Your task to perform on an android device: What's the weather going to be tomorrow? Image 0: 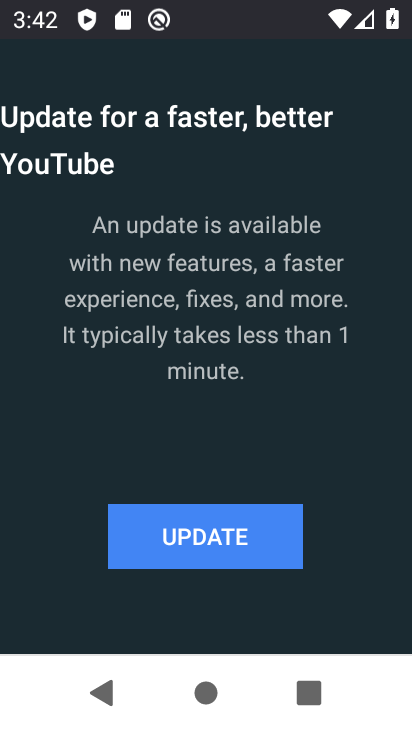
Step 0: click (280, 520)
Your task to perform on an android device: What's the weather going to be tomorrow? Image 1: 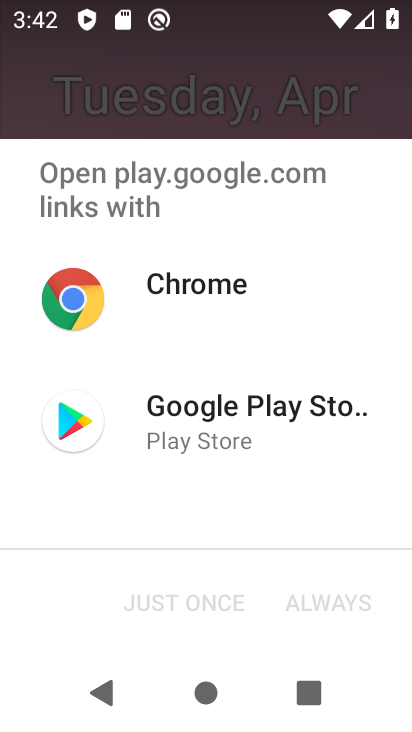
Step 1: press home button
Your task to perform on an android device: What's the weather going to be tomorrow? Image 2: 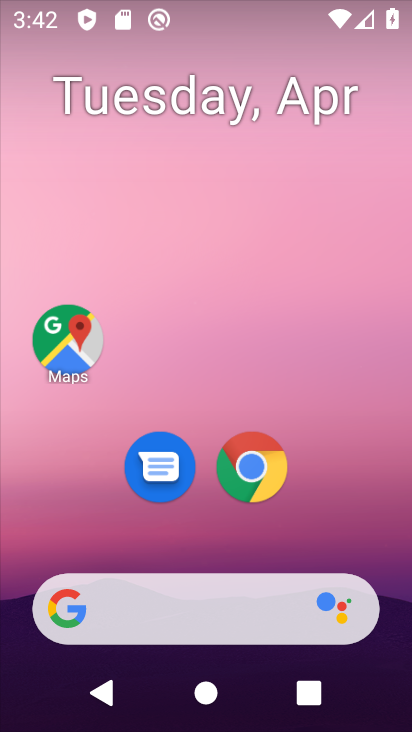
Step 2: drag from (246, 335) to (231, 65)
Your task to perform on an android device: What's the weather going to be tomorrow? Image 3: 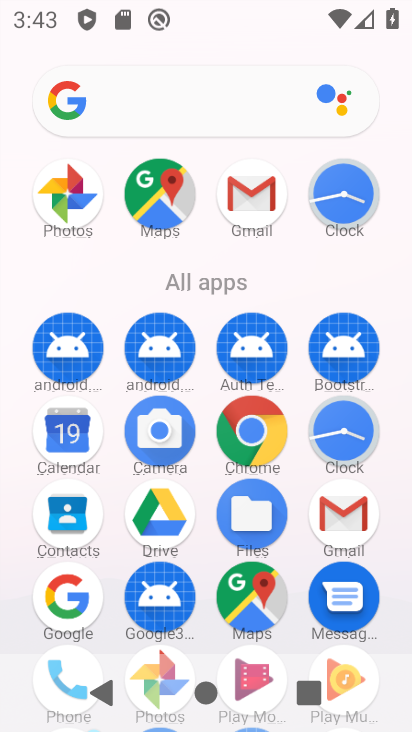
Step 3: click (55, 598)
Your task to perform on an android device: What's the weather going to be tomorrow? Image 4: 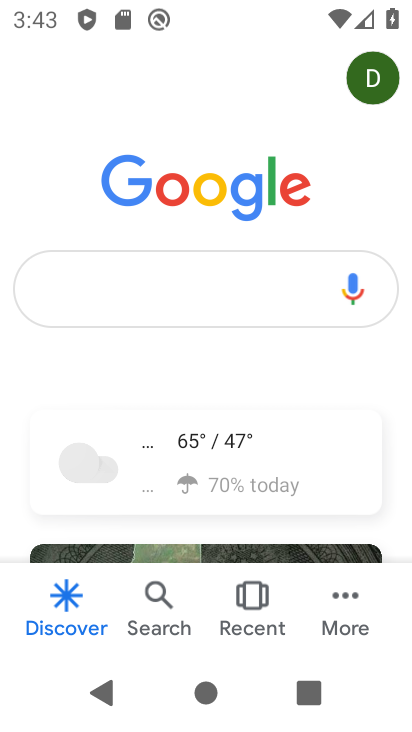
Step 4: click (233, 476)
Your task to perform on an android device: What's the weather going to be tomorrow? Image 5: 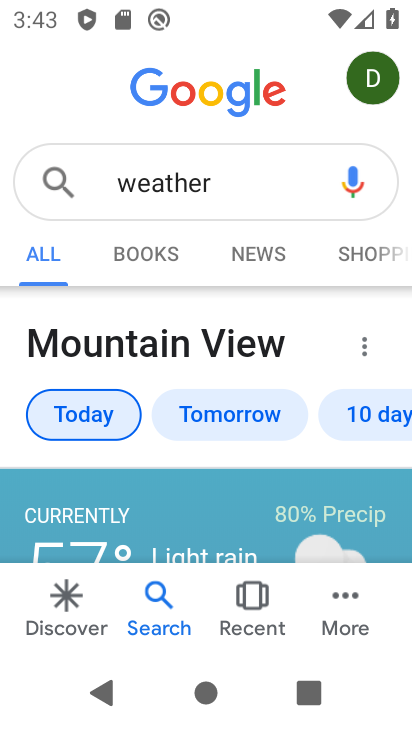
Step 5: click (258, 411)
Your task to perform on an android device: What's the weather going to be tomorrow? Image 6: 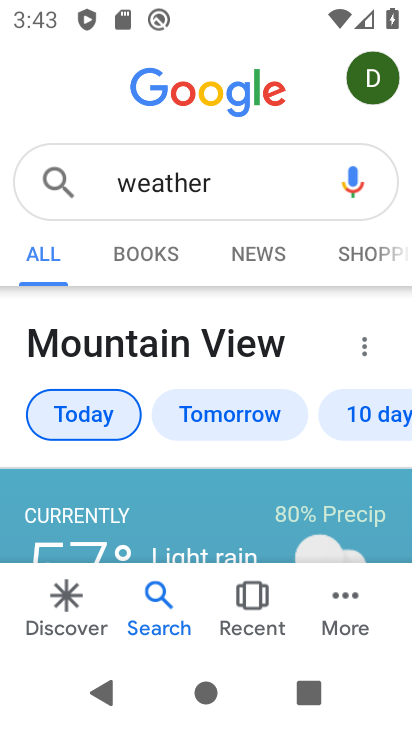
Step 6: click (258, 411)
Your task to perform on an android device: What's the weather going to be tomorrow? Image 7: 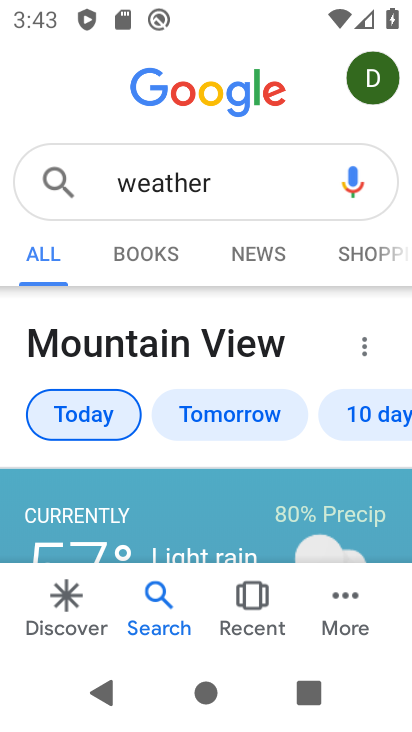
Step 7: click (242, 418)
Your task to perform on an android device: What's the weather going to be tomorrow? Image 8: 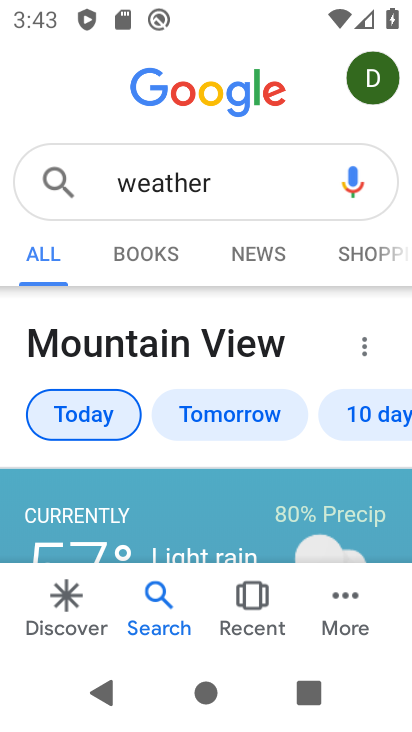
Step 8: click (243, 418)
Your task to perform on an android device: What's the weather going to be tomorrow? Image 9: 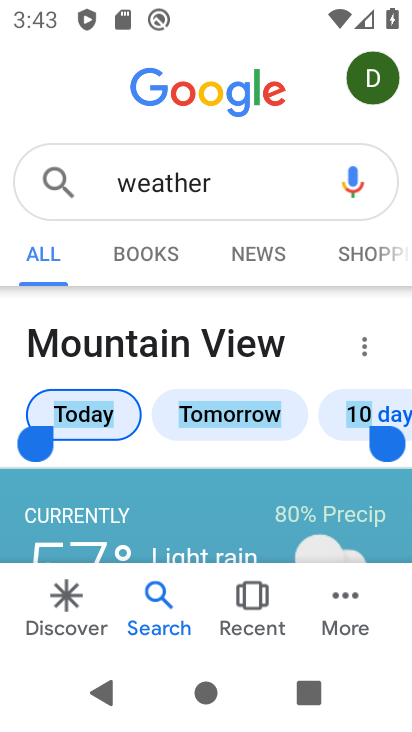
Step 9: click (245, 417)
Your task to perform on an android device: What's the weather going to be tomorrow? Image 10: 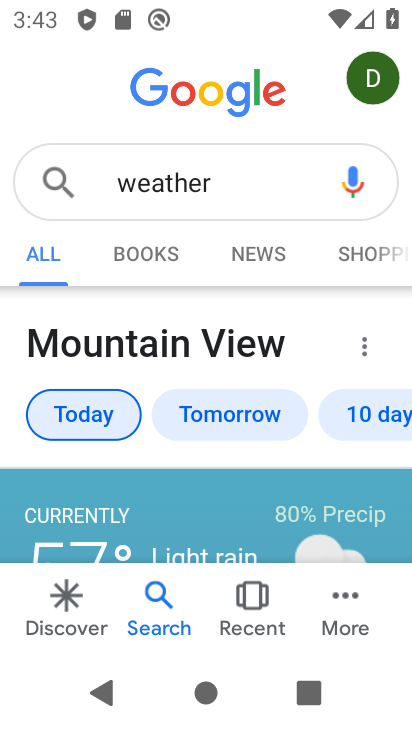
Step 10: click (241, 448)
Your task to perform on an android device: What's the weather going to be tomorrow? Image 11: 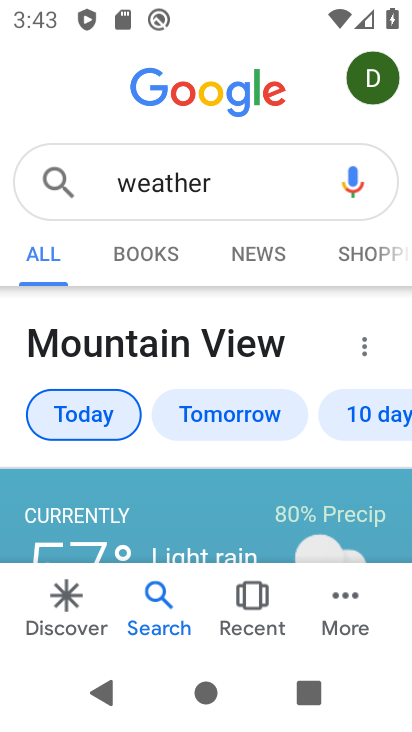
Step 11: click (224, 414)
Your task to perform on an android device: What's the weather going to be tomorrow? Image 12: 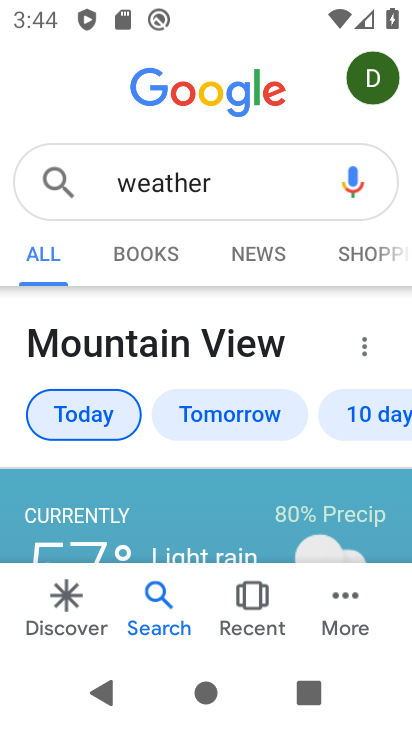
Step 12: click (224, 414)
Your task to perform on an android device: What's the weather going to be tomorrow? Image 13: 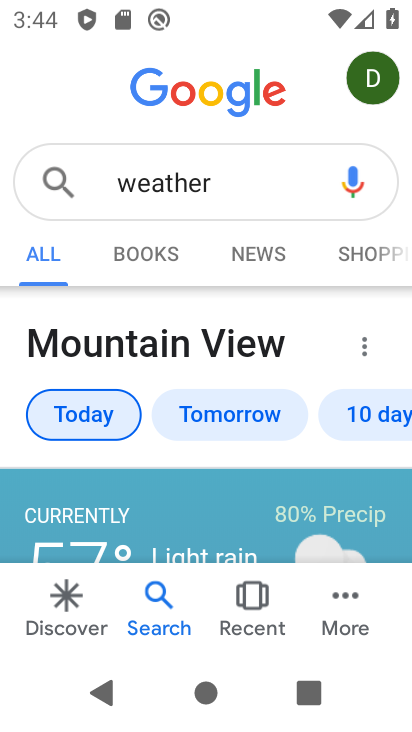
Step 13: click (224, 414)
Your task to perform on an android device: What's the weather going to be tomorrow? Image 14: 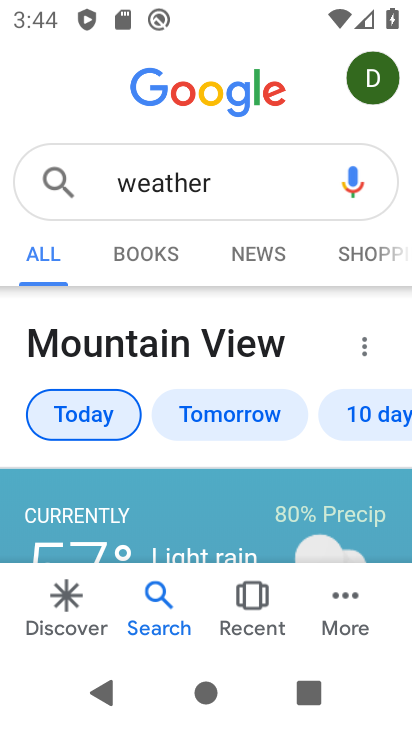
Step 14: click (224, 414)
Your task to perform on an android device: What's the weather going to be tomorrow? Image 15: 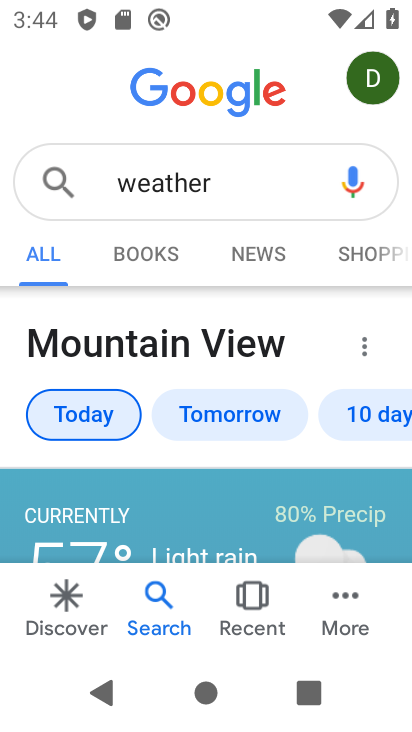
Step 15: task complete